Your task to perform on an android device: Go to Reddit.com Image 0: 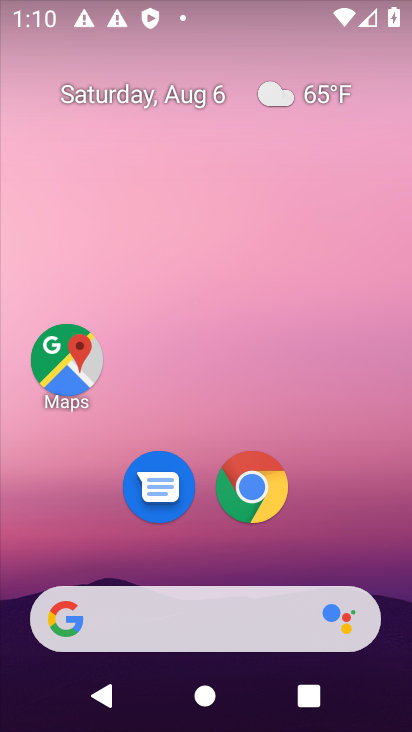
Step 0: drag from (295, 588) to (203, 119)
Your task to perform on an android device: Go to Reddit.com Image 1: 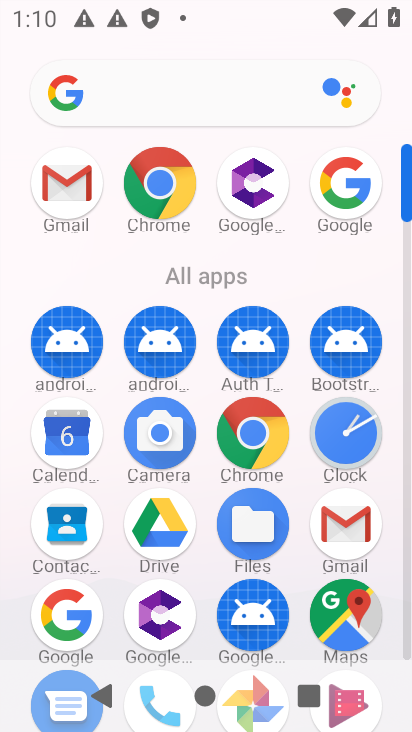
Step 1: click (169, 175)
Your task to perform on an android device: Go to Reddit.com Image 2: 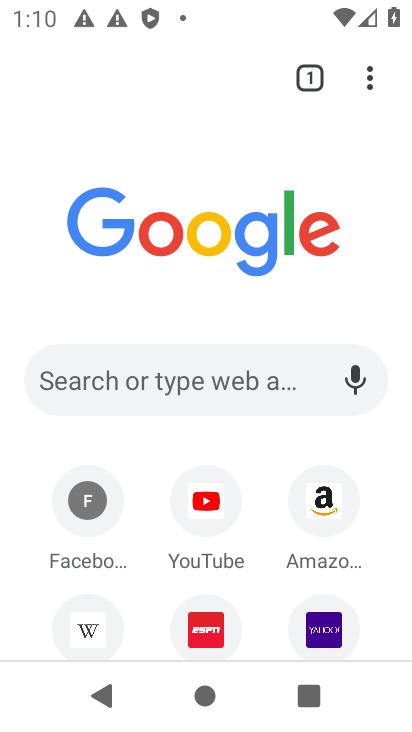
Step 2: click (236, 392)
Your task to perform on an android device: Go to Reddit.com Image 3: 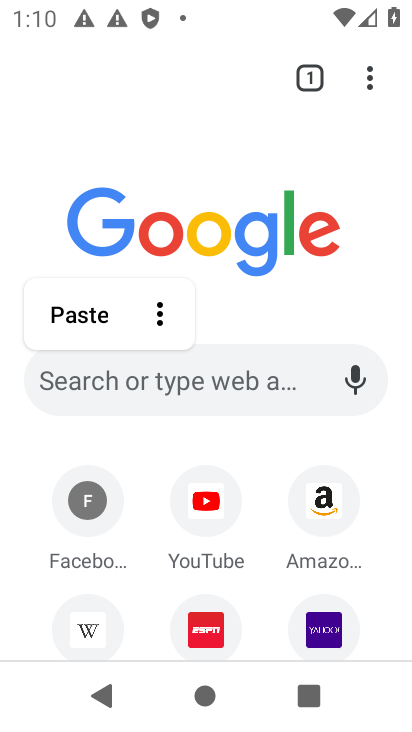
Step 3: click (207, 374)
Your task to perform on an android device: Go to Reddit.com Image 4: 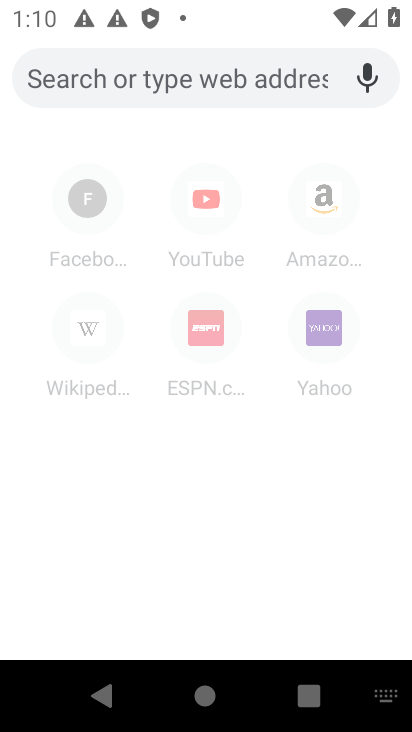
Step 4: press enter
Your task to perform on an android device: Go to Reddit.com Image 5: 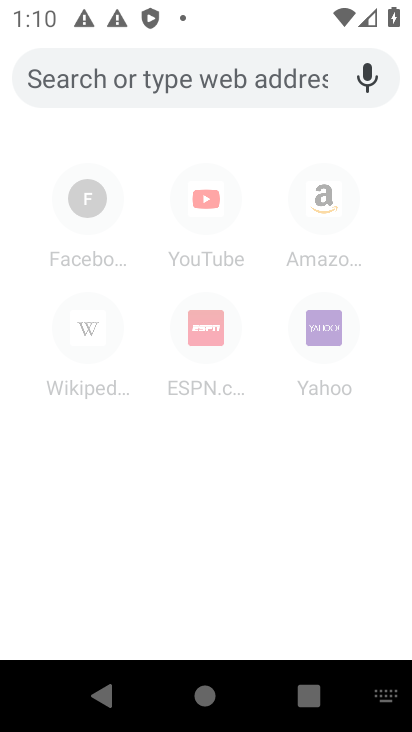
Step 5: type "Reddit.com"
Your task to perform on an android device: Go to Reddit.com Image 6: 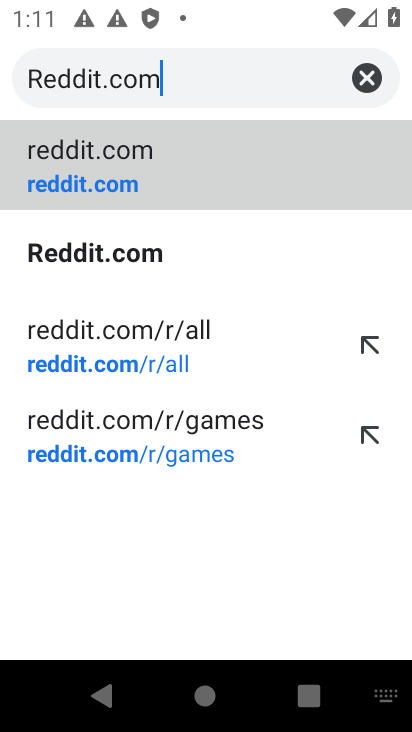
Step 6: click (107, 185)
Your task to perform on an android device: Go to Reddit.com Image 7: 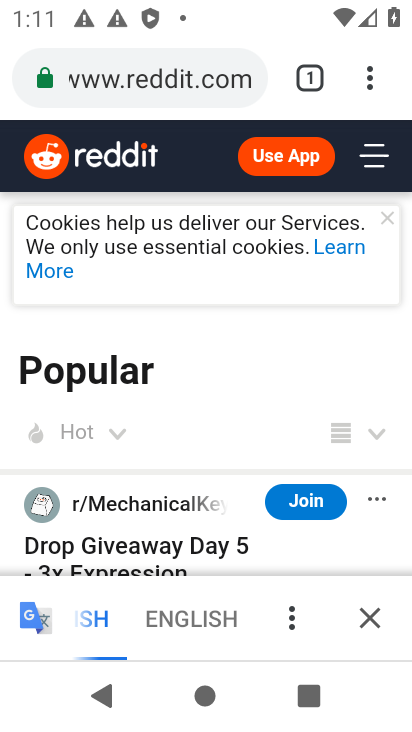
Step 7: task complete